Your task to perform on an android device: turn on priority inbox in the gmail app Image 0: 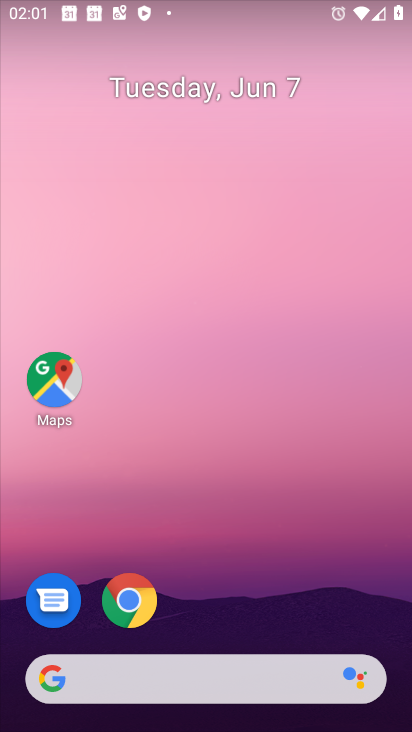
Step 0: drag from (197, 716) to (190, 274)
Your task to perform on an android device: turn on priority inbox in the gmail app Image 1: 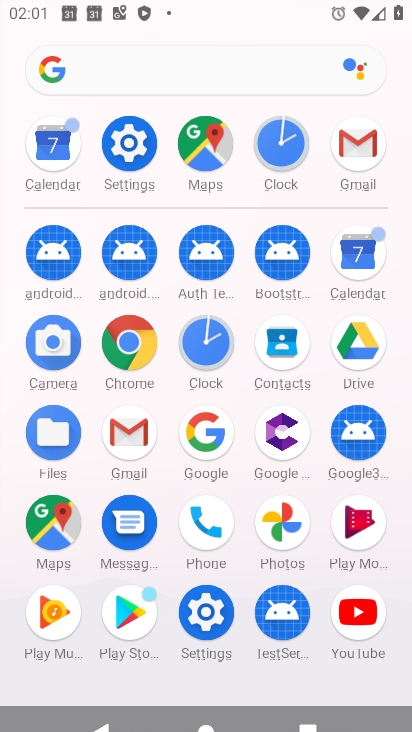
Step 1: click (133, 429)
Your task to perform on an android device: turn on priority inbox in the gmail app Image 2: 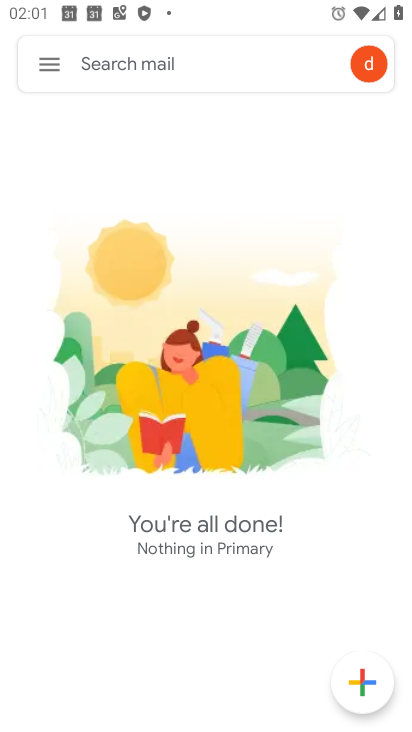
Step 2: click (50, 59)
Your task to perform on an android device: turn on priority inbox in the gmail app Image 3: 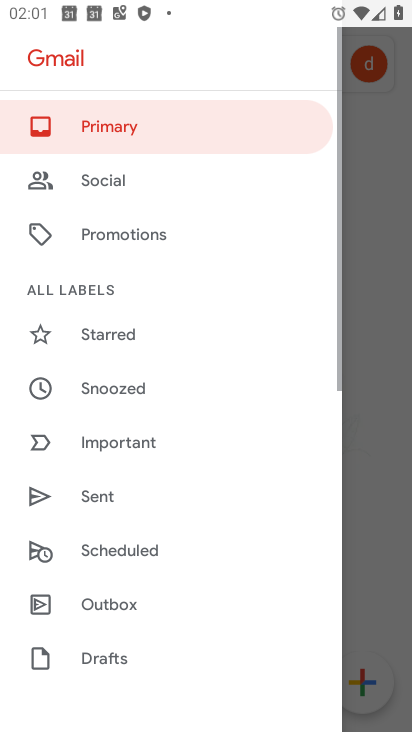
Step 3: drag from (112, 631) to (110, 236)
Your task to perform on an android device: turn on priority inbox in the gmail app Image 4: 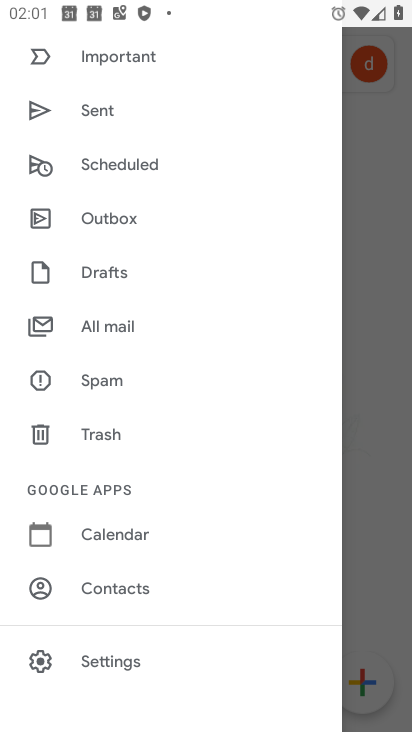
Step 4: click (112, 652)
Your task to perform on an android device: turn on priority inbox in the gmail app Image 5: 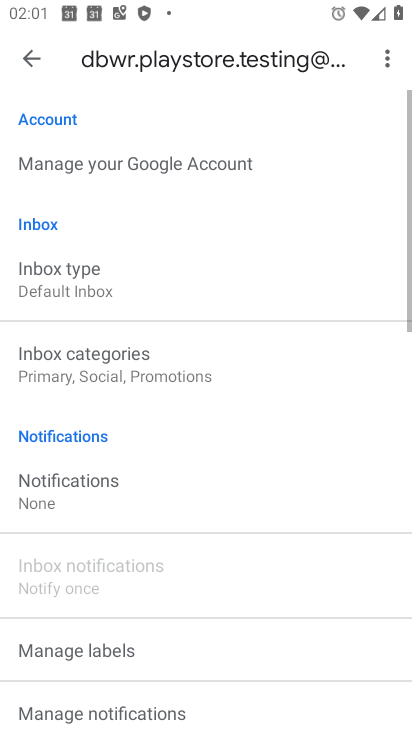
Step 5: click (78, 285)
Your task to perform on an android device: turn on priority inbox in the gmail app Image 6: 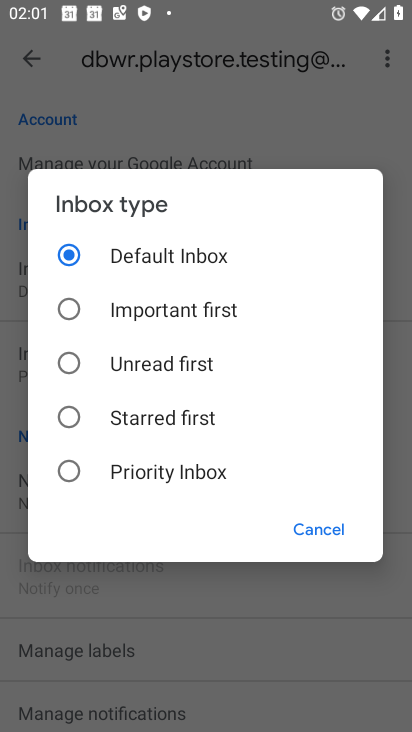
Step 6: click (72, 466)
Your task to perform on an android device: turn on priority inbox in the gmail app Image 7: 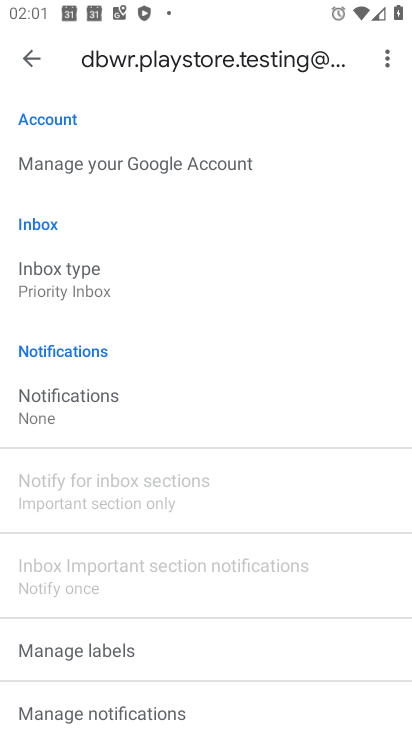
Step 7: task complete